Your task to perform on an android device: find which apps use the phone's location Image 0: 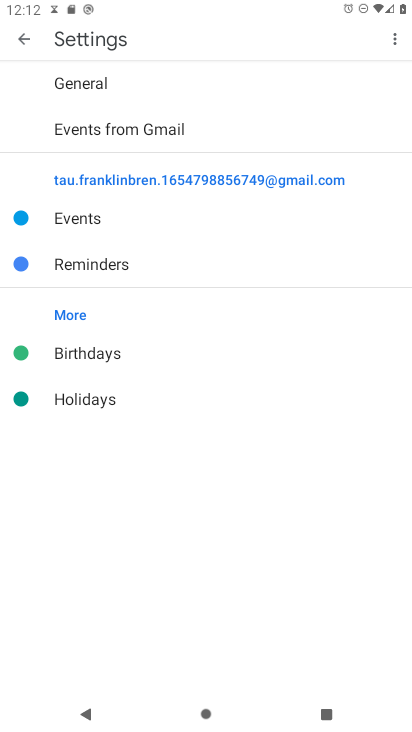
Step 0: press home button
Your task to perform on an android device: find which apps use the phone's location Image 1: 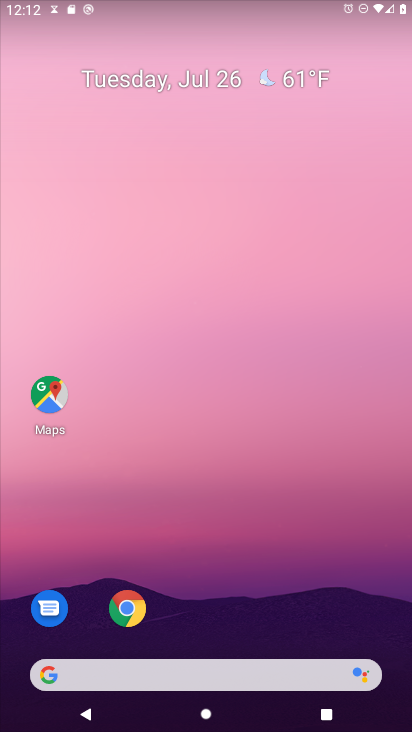
Step 1: drag from (180, 673) to (247, 36)
Your task to perform on an android device: find which apps use the phone's location Image 2: 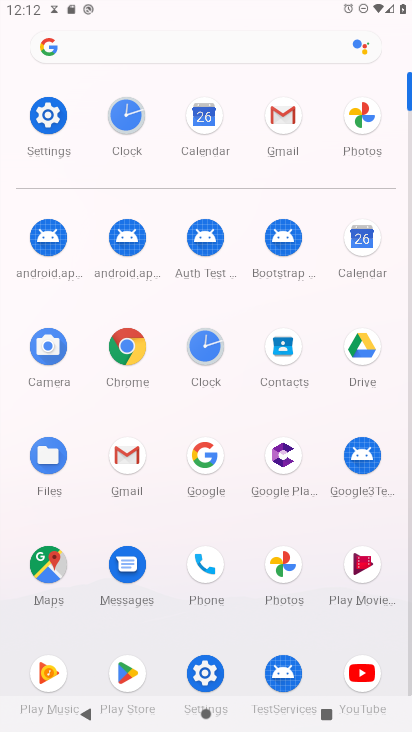
Step 2: click (48, 114)
Your task to perform on an android device: find which apps use the phone's location Image 3: 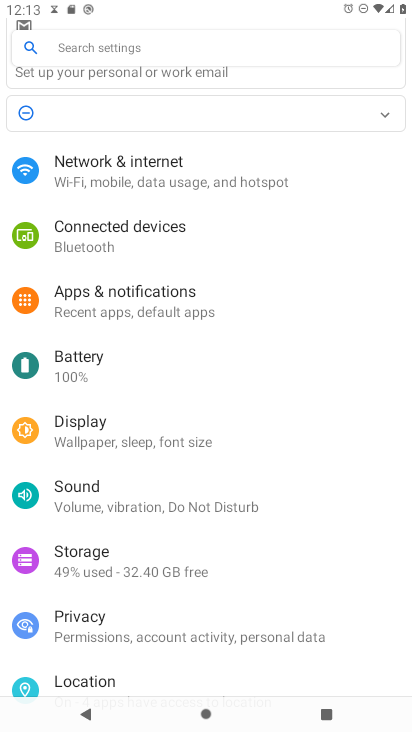
Step 3: drag from (78, 598) to (93, 435)
Your task to perform on an android device: find which apps use the phone's location Image 4: 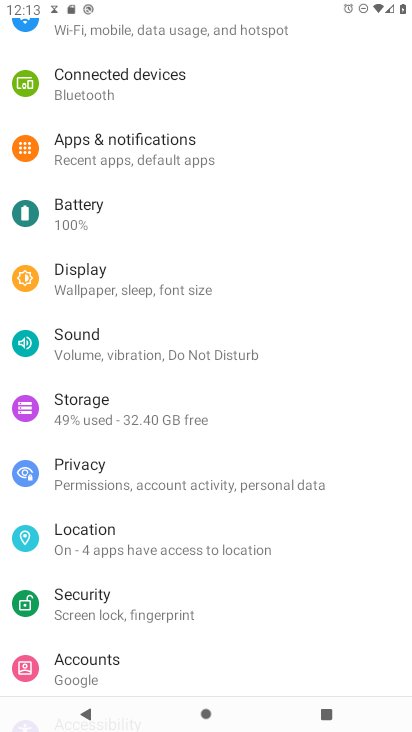
Step 4: click (132, 552)
Your task to perform on an android device: find which apps use the phone's location Image 5: 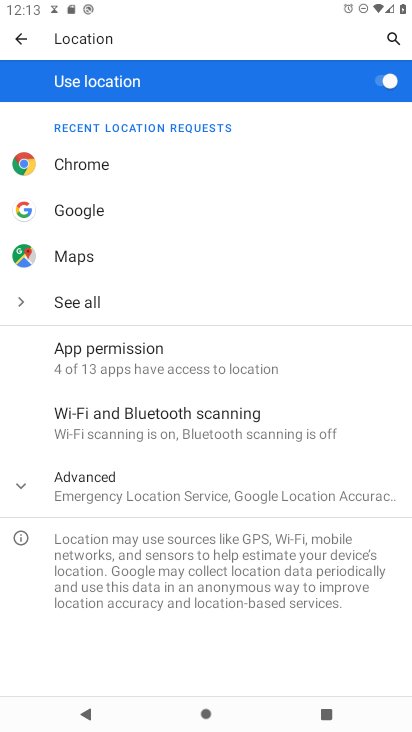
Step 5: click (130, 364)
Your task to perform on an android device: find which apps use the phone's location Image 6: 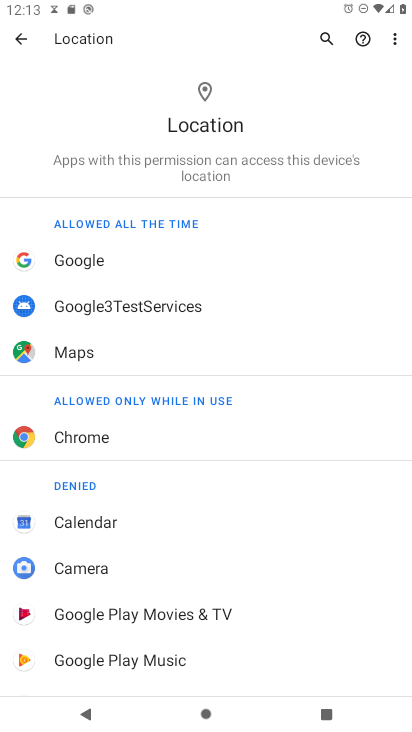
Step 6: click (59, 358)
Your task to perform on an android device: find which apps use the phone's location Image 7: 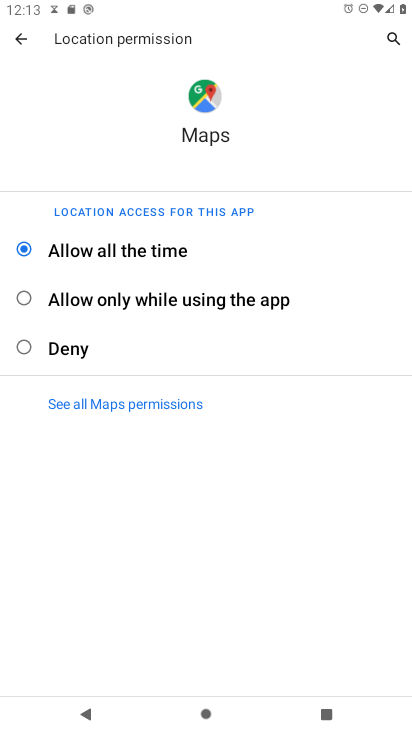
Step 7: task complete